Your task to perform on an android device: stop showing notifications on the lock screen Image 0: 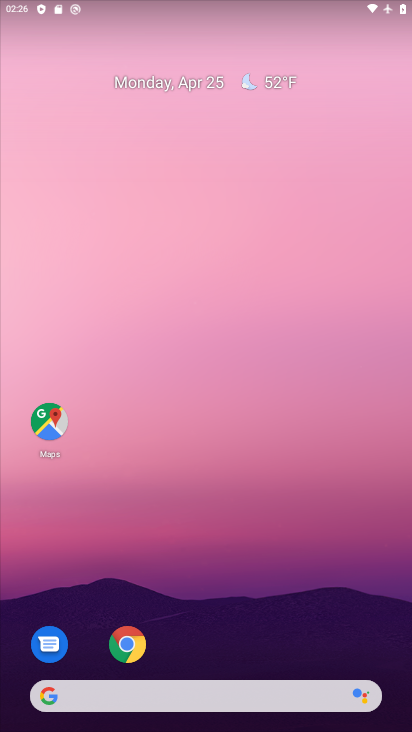
Step 0: drag from (229, 621) to (226, 27)
Your task to perform on an android device: stop showing notifications on the lock screen Image 1: 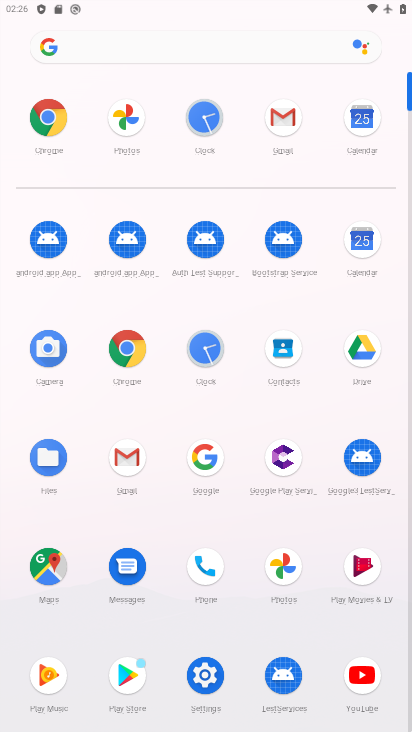
Step 1: click (213, 684)
Your task to perform on an android device: stop showing notifications on the lock screen Image 2: 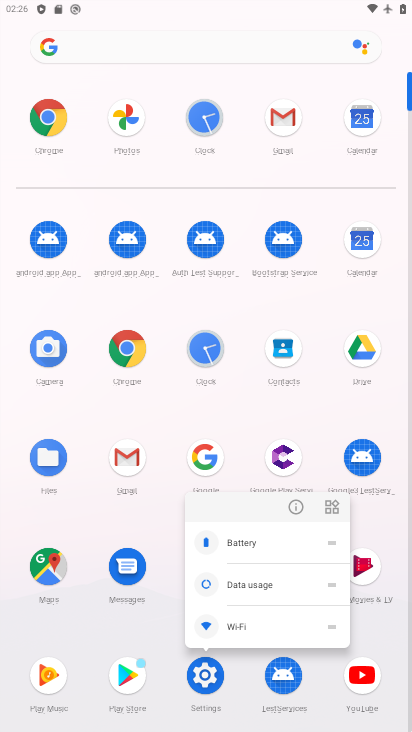
Step 2: click (213, 684)
Your task to perform on an android device: stop showing notifications on the lock screen Image 3: 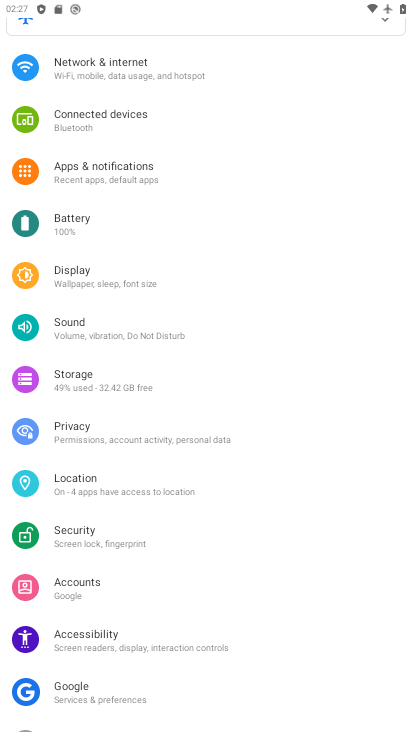
Step 3: click (82, 161)
Your task to perform on an android device: stop showing notifications on the lock screen Image 4: 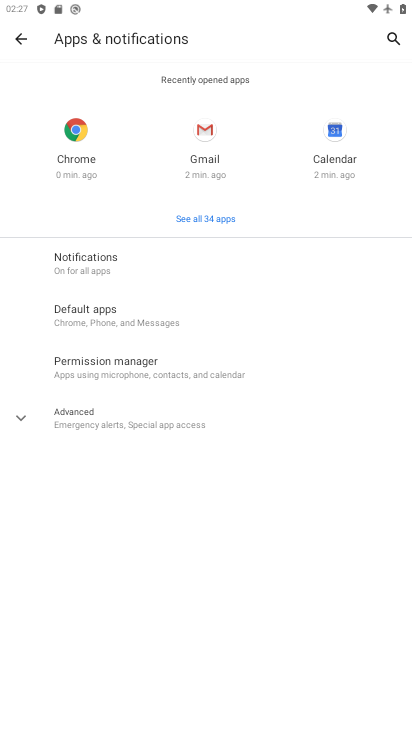
Step 4: click (77, 416)
Your task to perform on an android device: stop showing notifications on the lock screen Image 5: 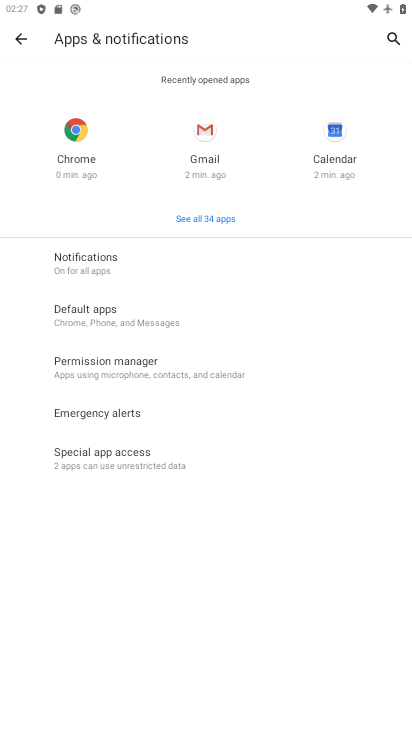
Step 5: click (129, 259)
Your task to perform on an android device: stop showing notifications on the lock screen Image 6: 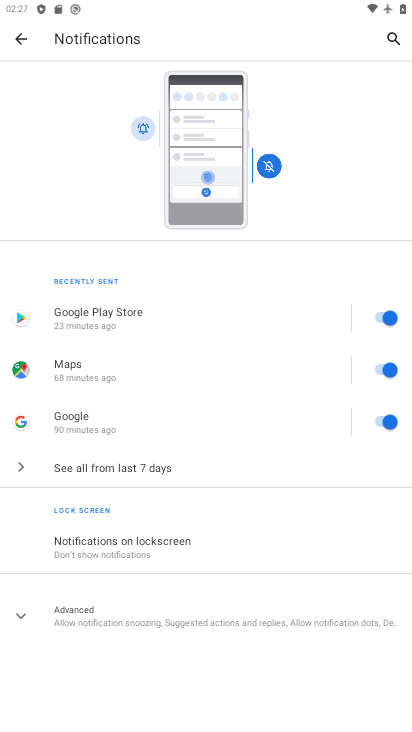
Step 6: click (200, 530)
Your task to perform on an android device: stop showing notifications on the lock screen Image 7: 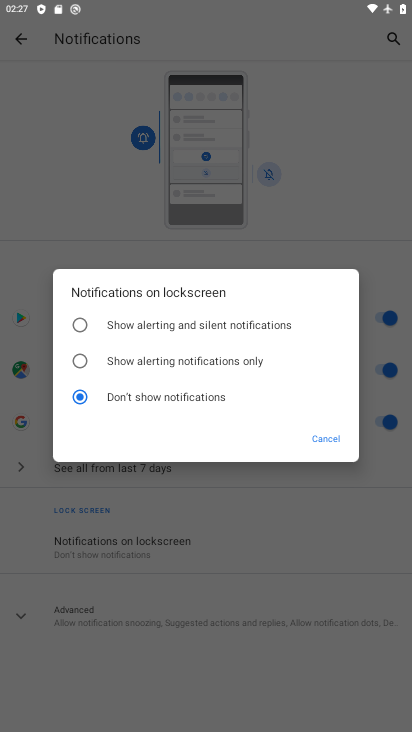
Step 7: task complete